Your task to perform on an android device: Open settings on Google Maps Image 0: 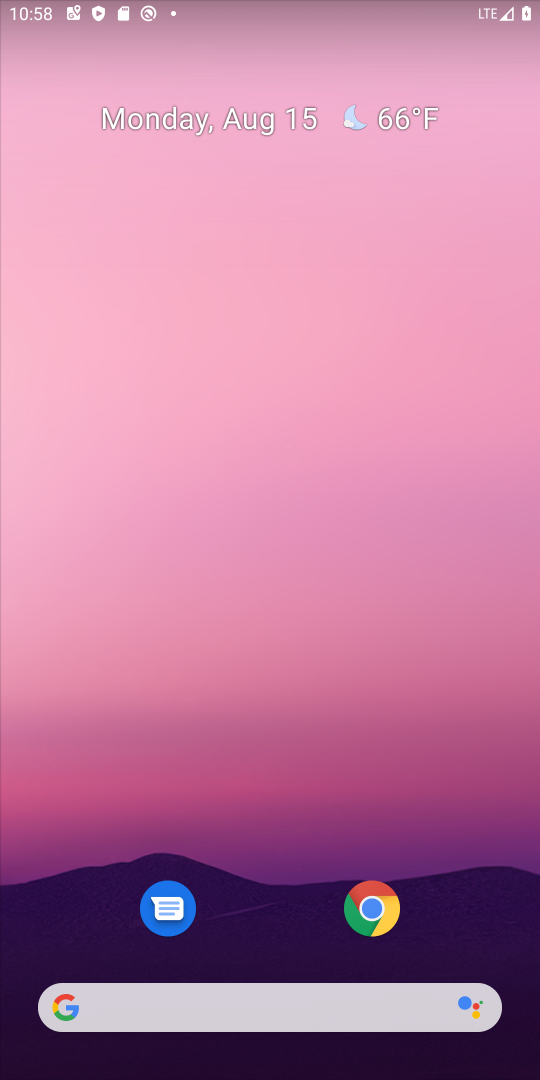
Step 0: drag from (260, 963) to (237, 103)
Your task to perform on an android device: Open settings on Google Maps Image 1: 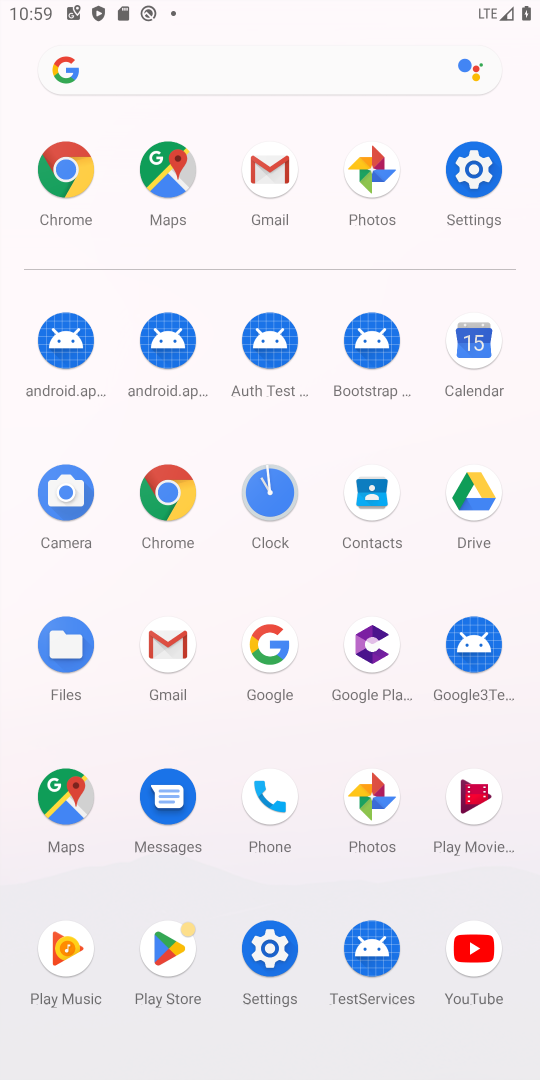
Step 1: click (169, 154)
Your task to perform on an android device: Open settings on Google Maps Image 2: 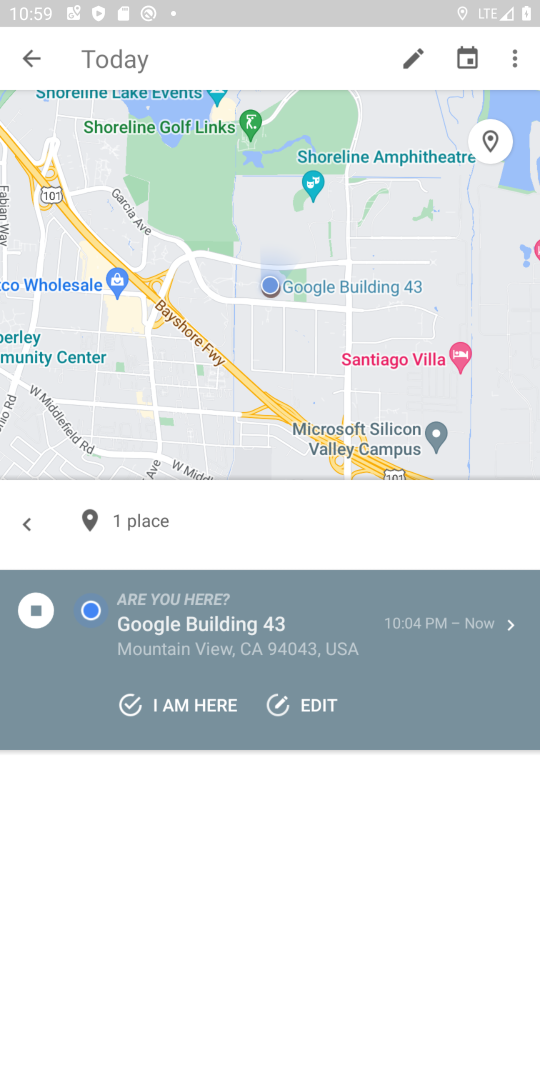
Step 2: click (22, 58)
Your task to perform on an android device: Open settings on Google Maps Image 3: 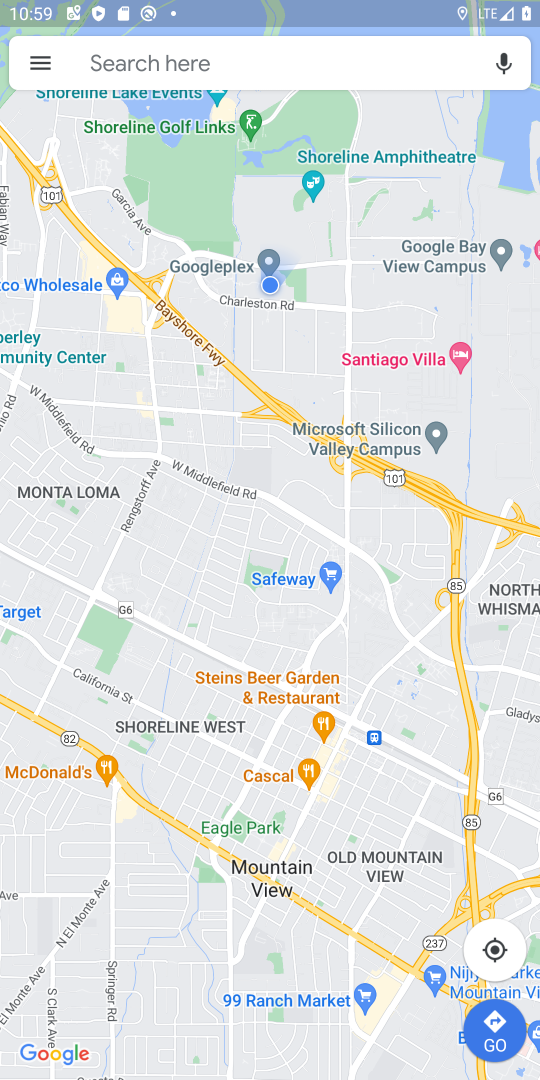
Step 3: click (22, 58)
Your task to perform on an android device: Open settings on Google Maps Image 4: 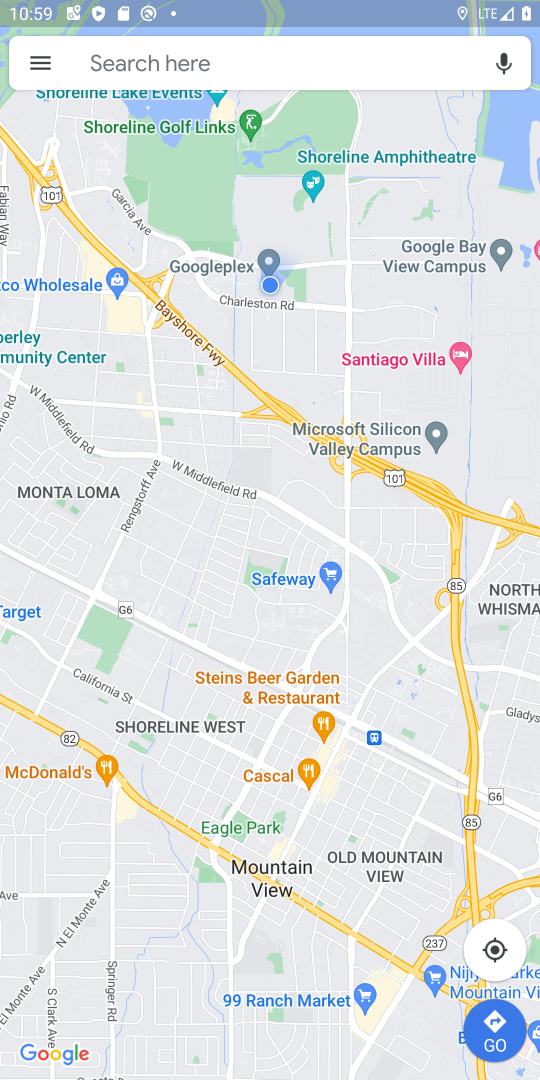
Step 4: click (42, 63)
Your task to perform on an android device: Open settings on Google Maps Image 5: 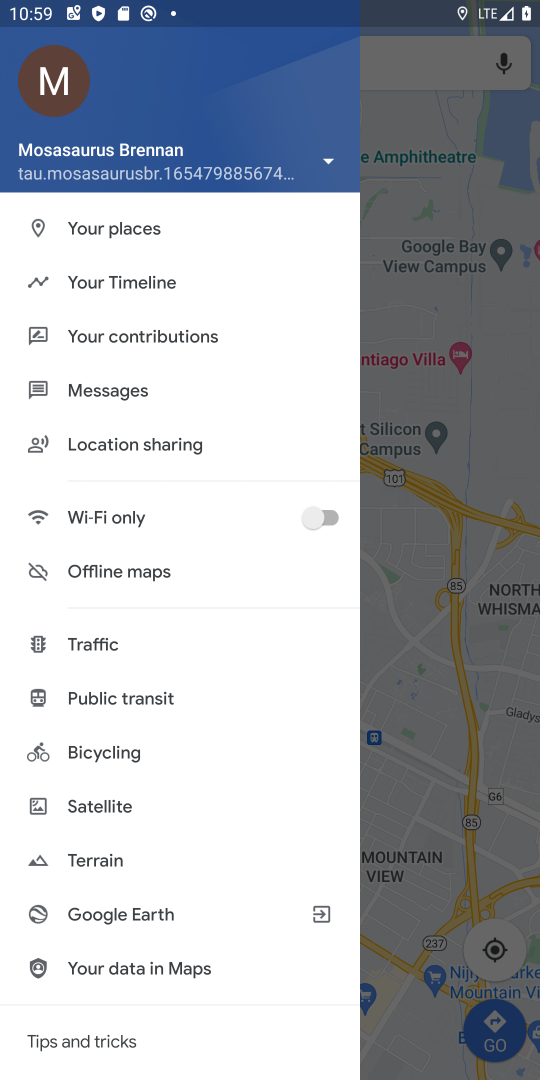
Step 5: click (122, 795)
Your task to perform on an android device: Open settings on Google Maps Image 6: 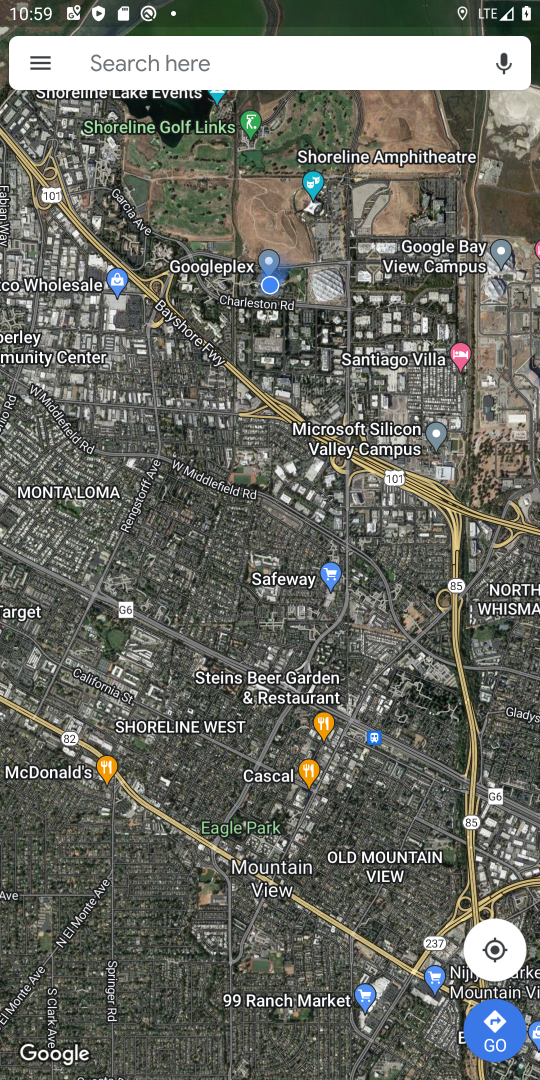
Step 6: task complete